Your task to perform on an android device: open sync settings in chrome Image 0: 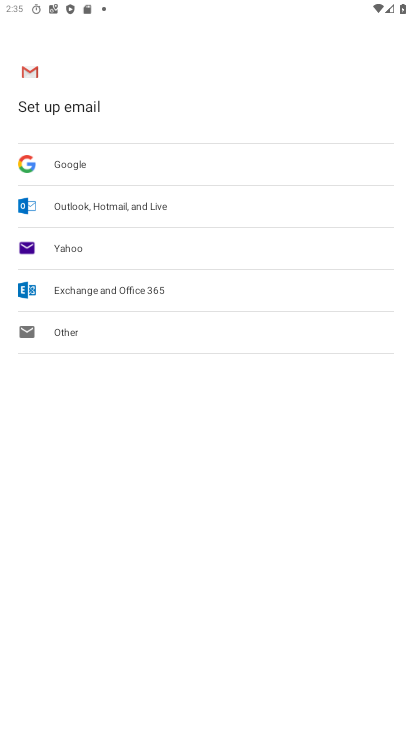
Step 0: press back button
Your task to perform on an android device: open sync settings in chrome Image 1: 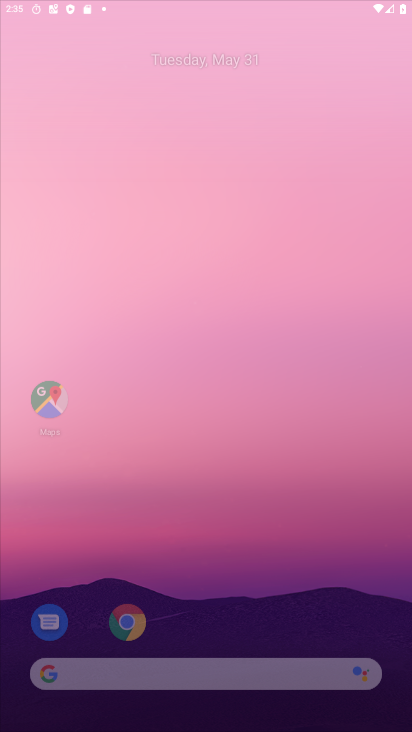
Step 1: press home button
Your task to perform on an android device: open sync settings in chrome Image 2: 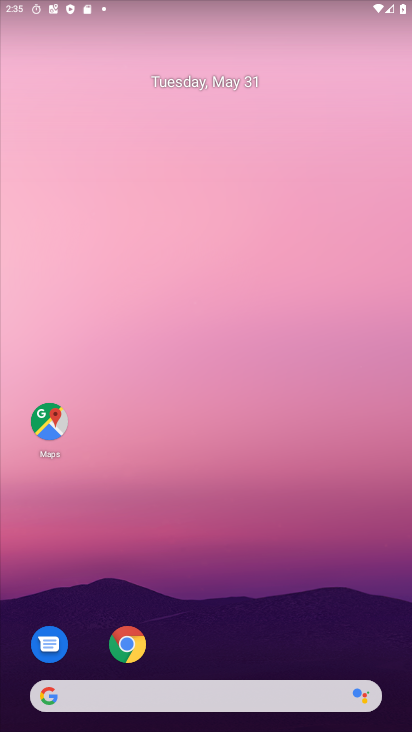
Step 2: drag from (354, 669) to (353, 446)
Your task to perform on an android device: open sync settings in chrome Image 3: 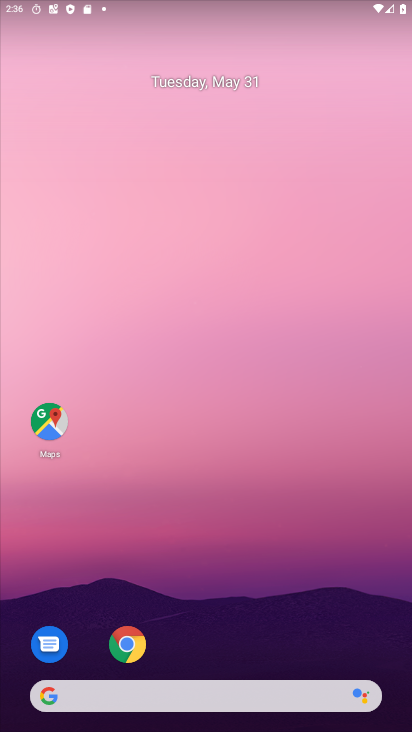
Step 3: click (353, 446)
Your task to perform on an android device: open sync settings in chrome Image 4: 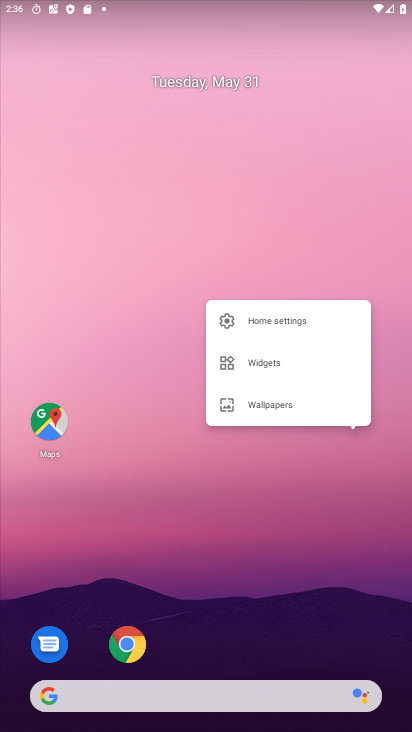
Step 4: click (356, 552)
Your task to perform on an android device: open sync settings in chrome Image 5: 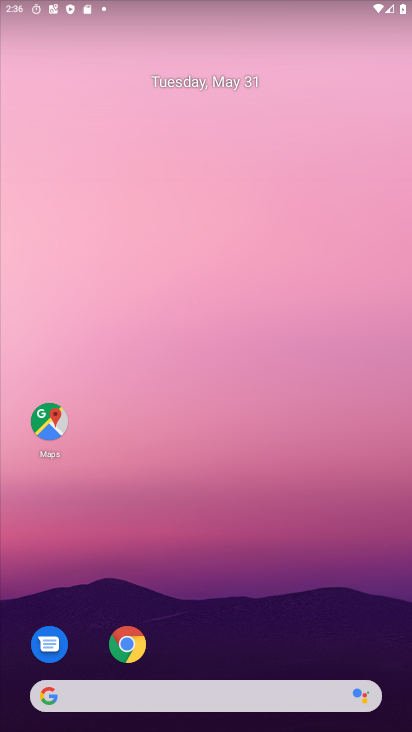
Step 5: click (134, 651)
Your task to perform on an android device: open sync settings in chrome Image 6: 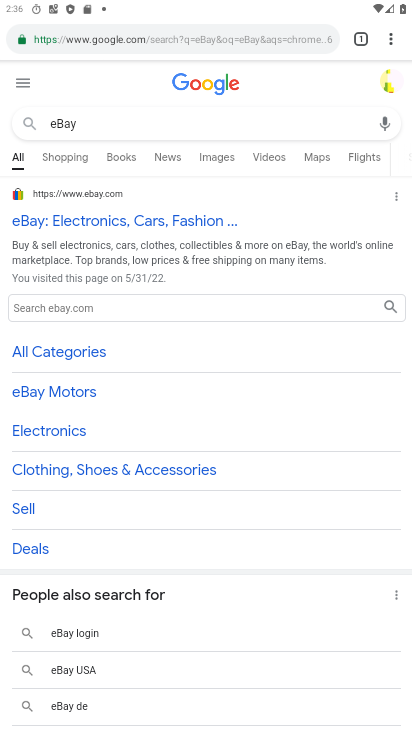
Step 6: click (393, 40)
Your task to perform on an android device: open sync settings in chrome Image 7: 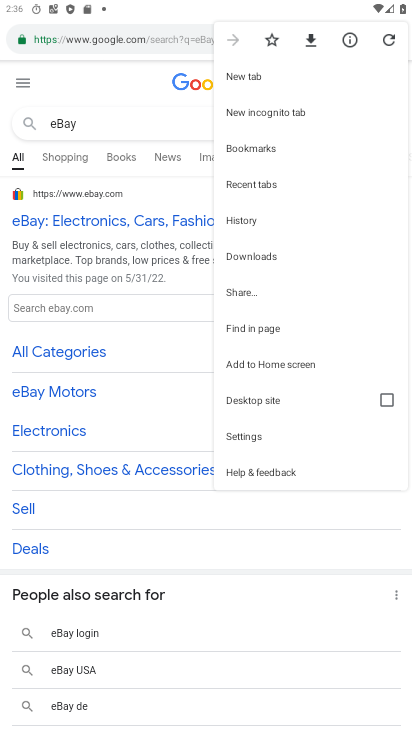
Step 7: click (233, 436)
Your task to perform on an android device: open sync settings in chrome Image 8: 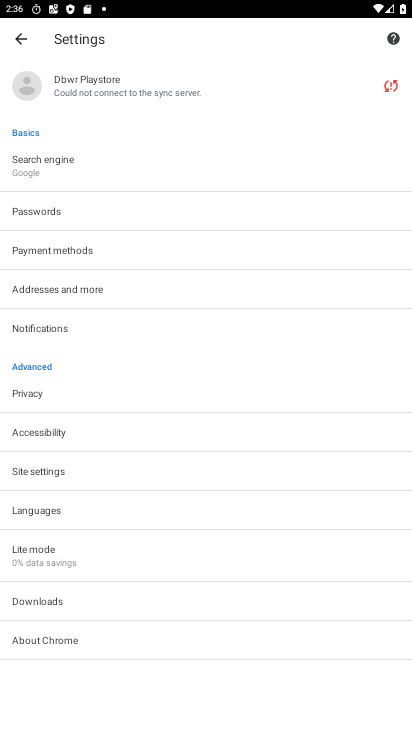
Step 8: click (43, 473)
Your task to perform on an android device: open sync settings in chrome Image 9: 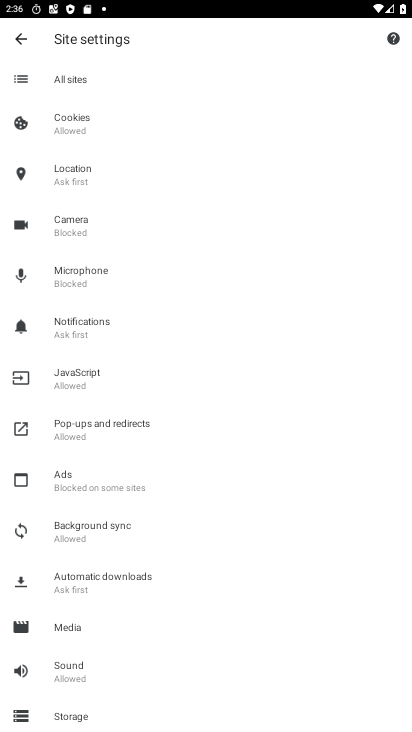
Step 9: click (82, 529)
Your task to perform on an android device: open sync settings in chrome Image 10: 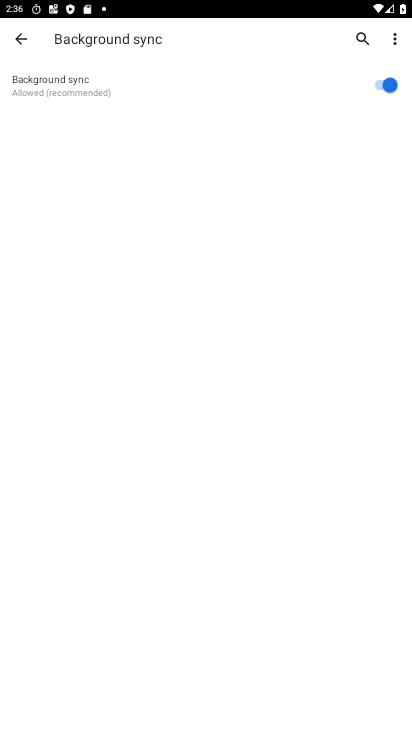
Step 10: task complete